Your task to perform on an android device: open chrome and create a bookmark for the current page Image 0: 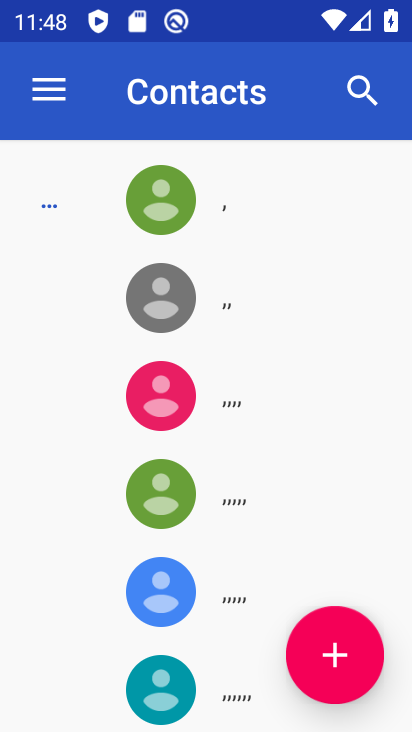
Step 0: press home button
Your task to perform on an android device: open chrome and create a bookmark for the current page Image 1: 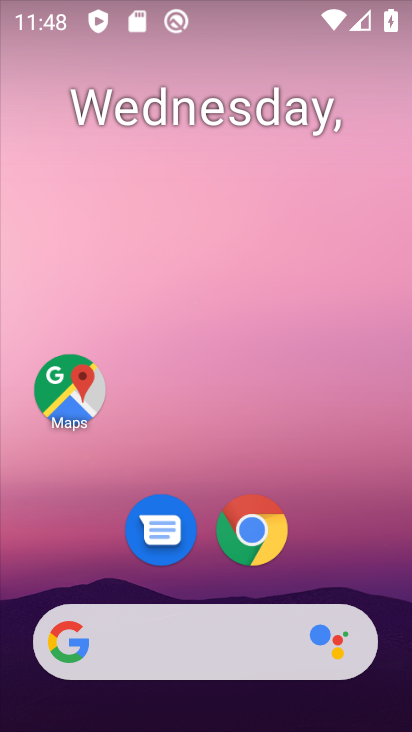
Step 1: click (258, 546)
Your task to perform on an android device: open chrome and create a bookmark for the current page Image 2: 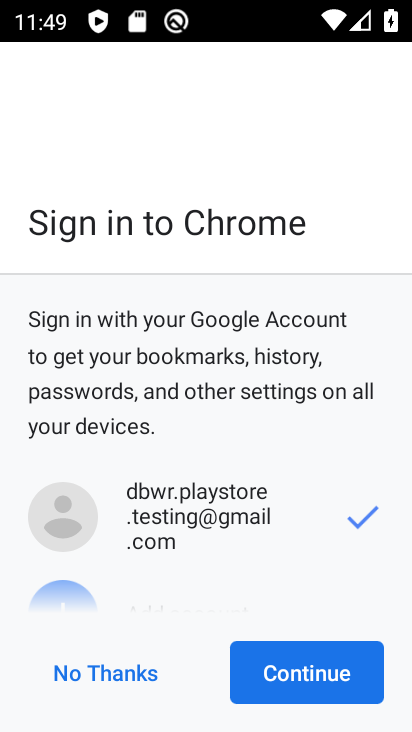
Step 2: click (291, 676)
Your task to perform on an android device: open chrome and create a bookmark for the current page Image 3: 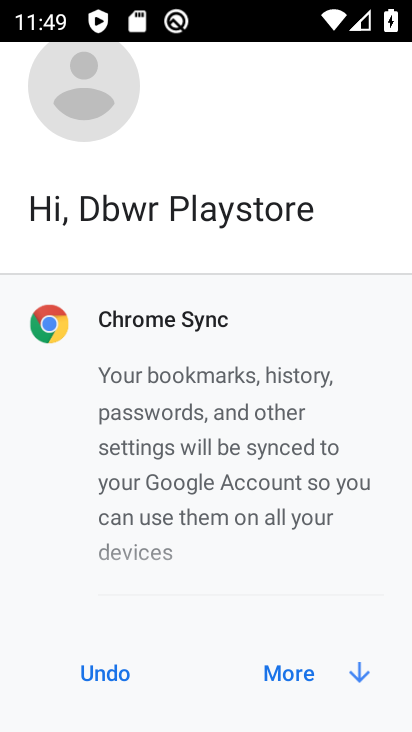
Step 3: click (291, 676)
Your task to perform on an android device: open chrome and create a bookmark for the current page Image 4: 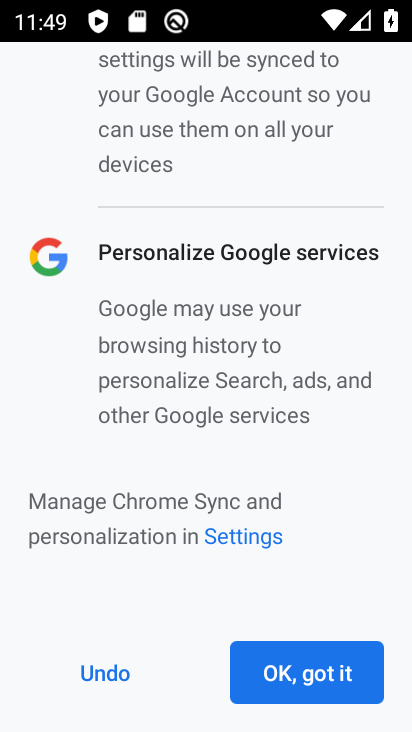
Step 4: click (291, 676)
Your task to perform on an android device: open chrome and create a bookmark for the current page Image 5: 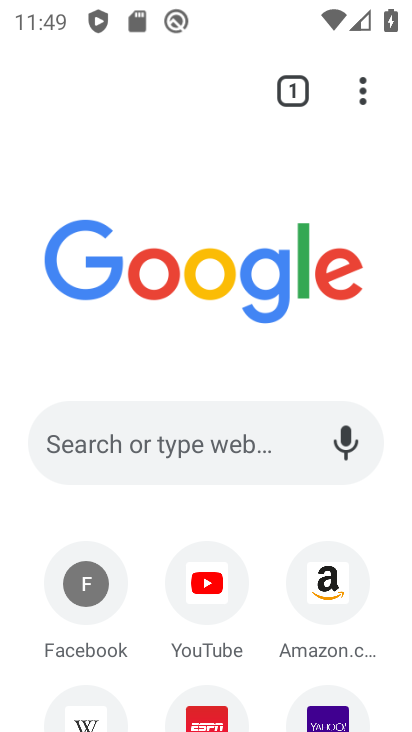
Step 5: task complete